Your task to perform on an android device: What is the news today? Image 0: 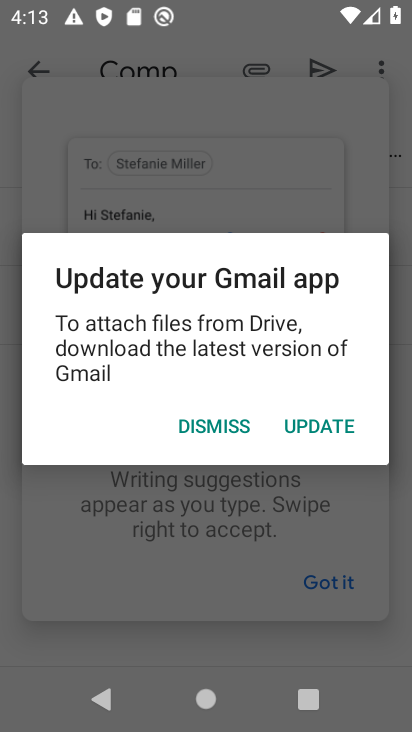
Step 0: click (218, 421)
Your task to perform on an android device: What is the news today? Image 1: 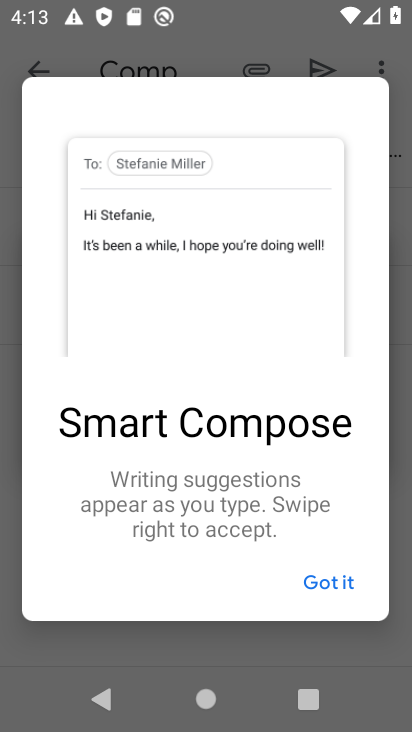
Step 1: click (327, 586)
Your task to perform on an android device: What is the news today? Image 2: 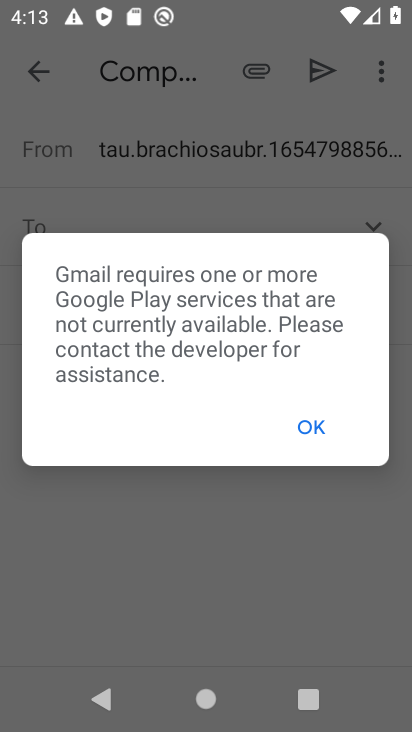
Step 2: click (318, 435)
Your task to perform on an android device: What is the news today? Image 3: 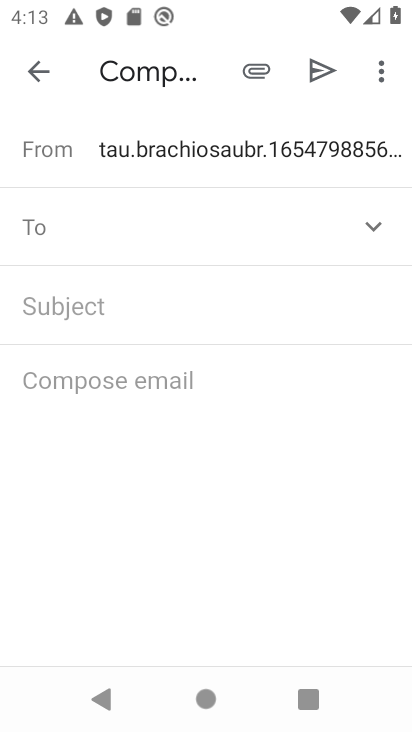
Step 3: press home button
Your task to perform on an android device: What is the news today? Image 4: 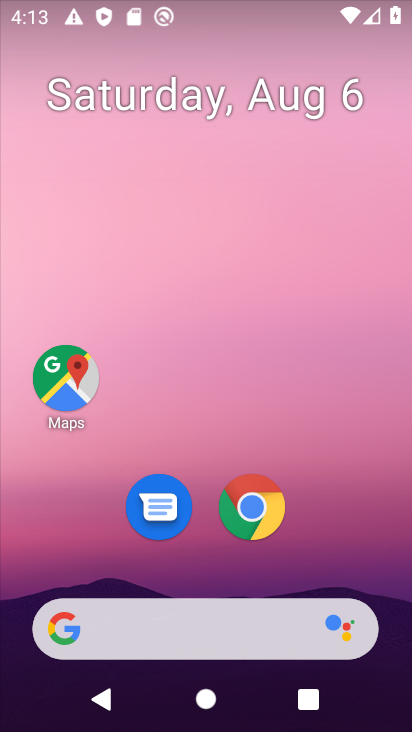
Step 4: drag from (244, 420) to (264, 104)
Your task to perform on an android device: What is the news today? Image 5: 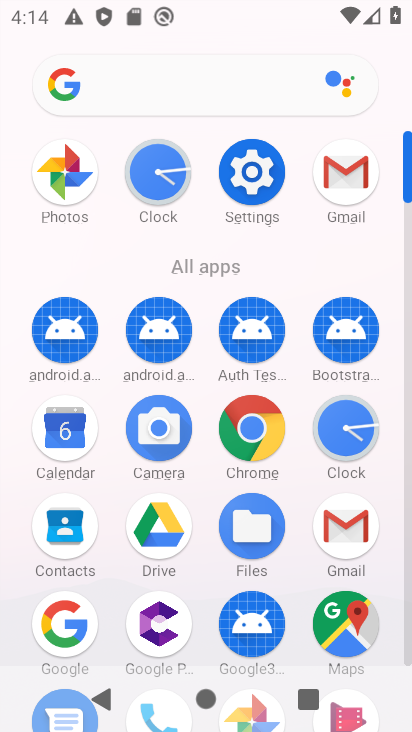
Step 5: click (204, 87)
Your task to perform on an android device: What is the news today? Image 6: 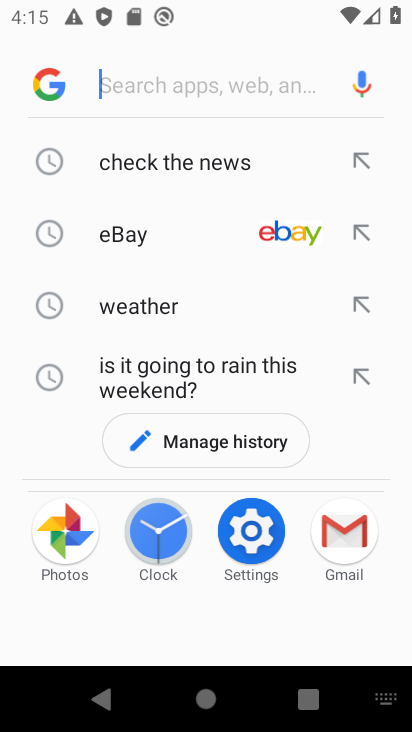
Step 6: type "What is the news today?"
Your task to perform on an android device: What is the news today? Image 7: 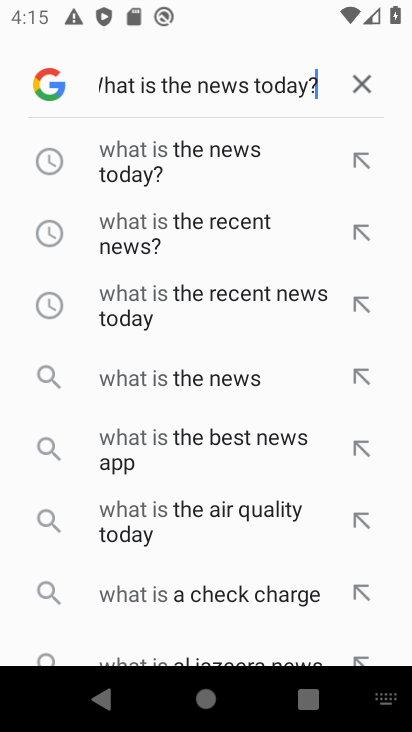
Step 7: type ""
Your task to perform on an android device: What is the news today? Image 8: 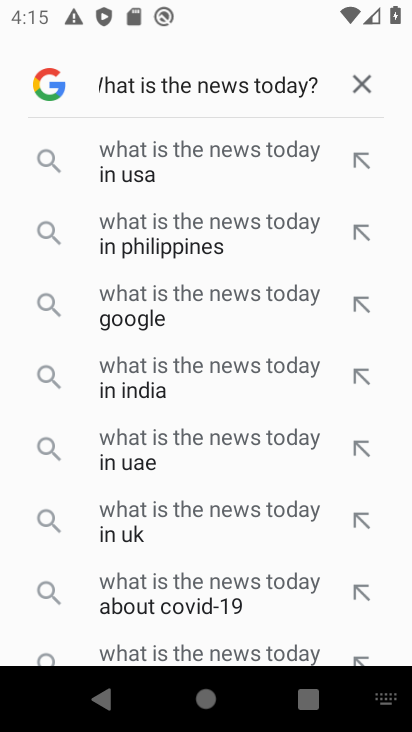
Step 8: press enter
Your task to perform on an android device: What is the news today? Image 9: 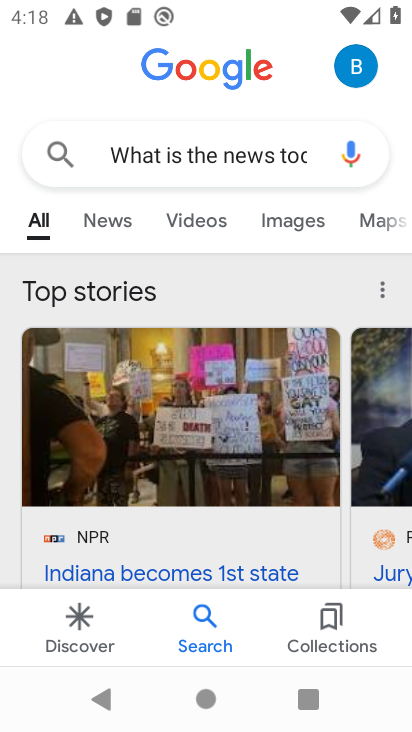
Step 9: task complete